Your task to perform on an android device: Open CNN.com Image 0: 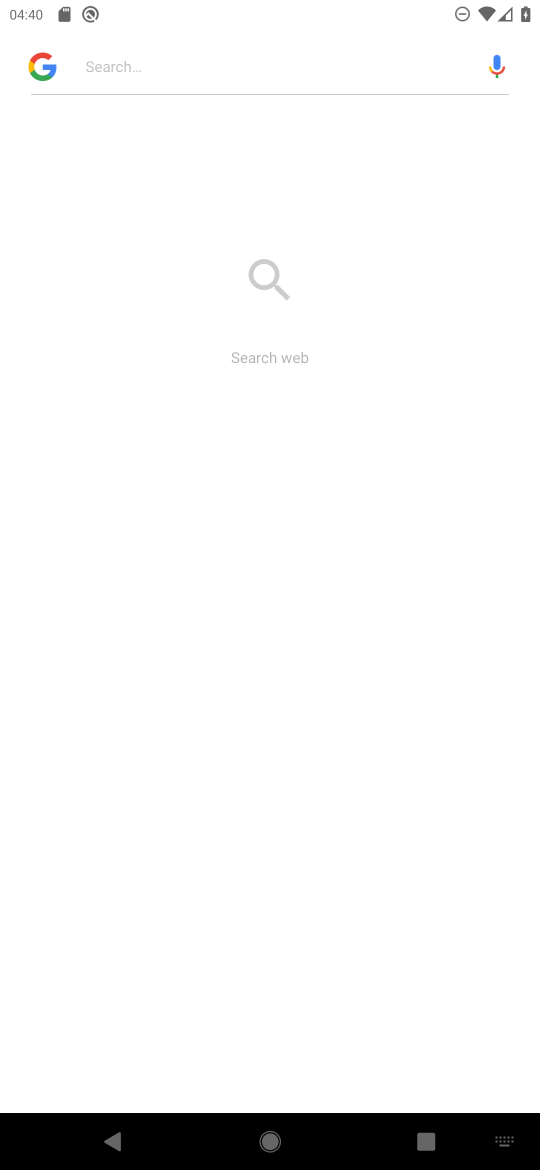
Step 0: press home button
Your task to perform on an android device: Open CNN.com Image 1: 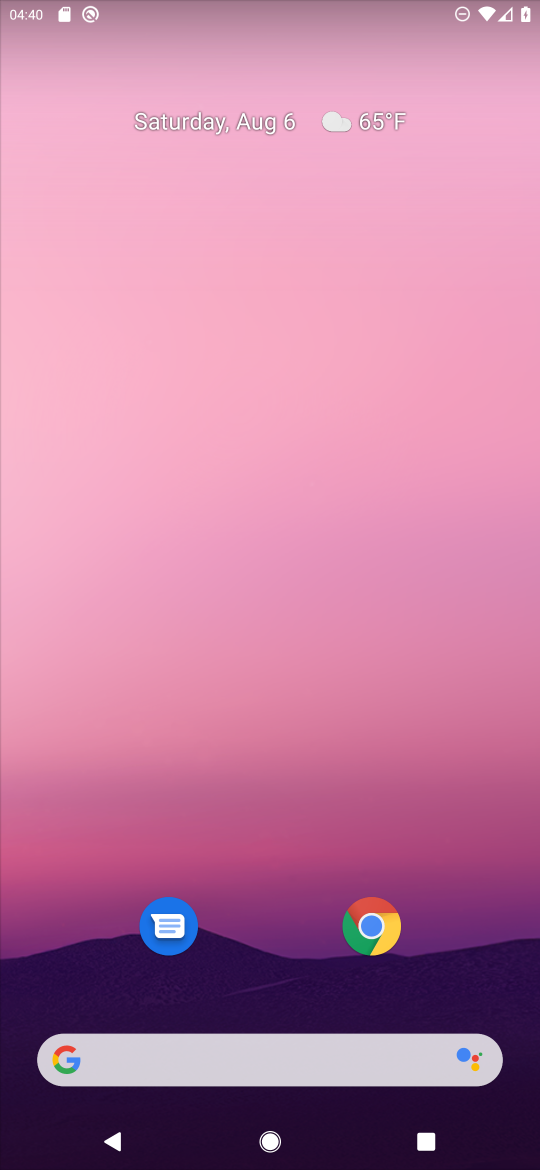
Step 1: click (354, 904)
Your task to perform on an android device: Open CNN.com Image 2: 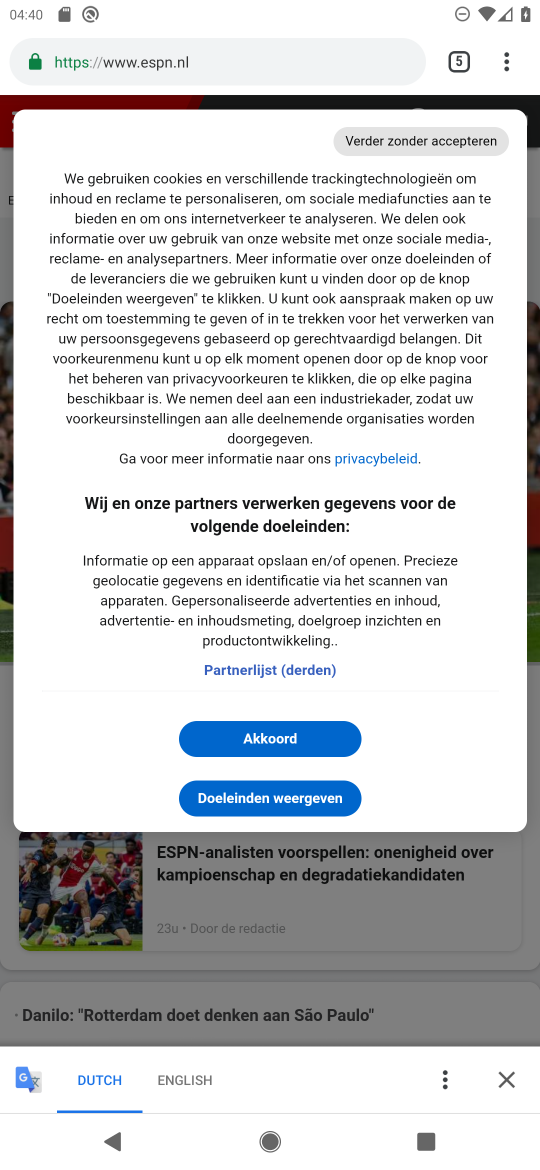
Step 2: click (473, 61)
Your task to perform on an android device: Open CNN.com Image 3: 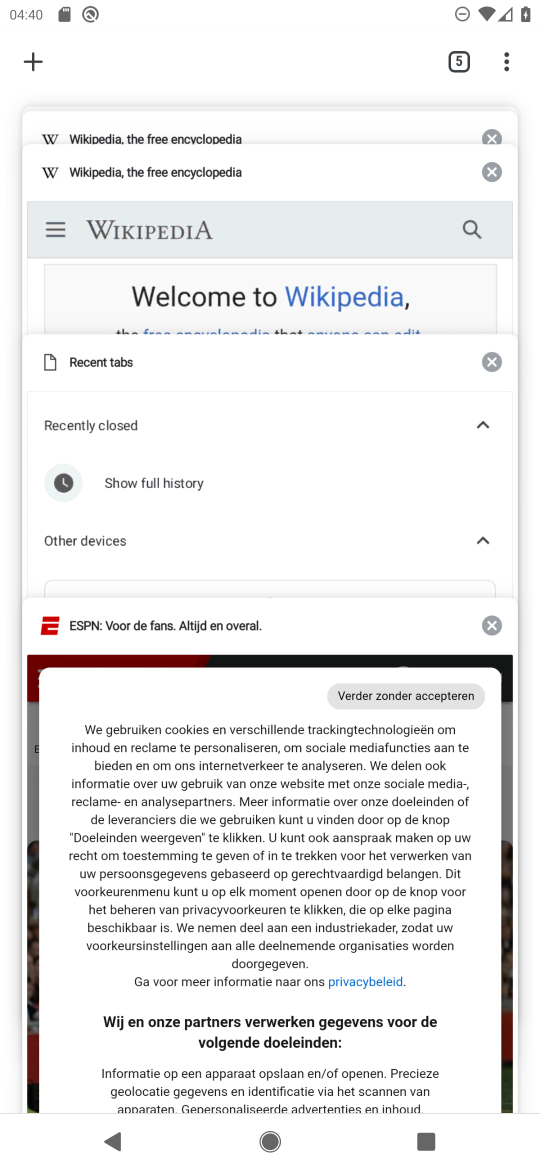
Step 3: click (30, 61)
Your task to perform on an android device: Open CNN.com Image 4: 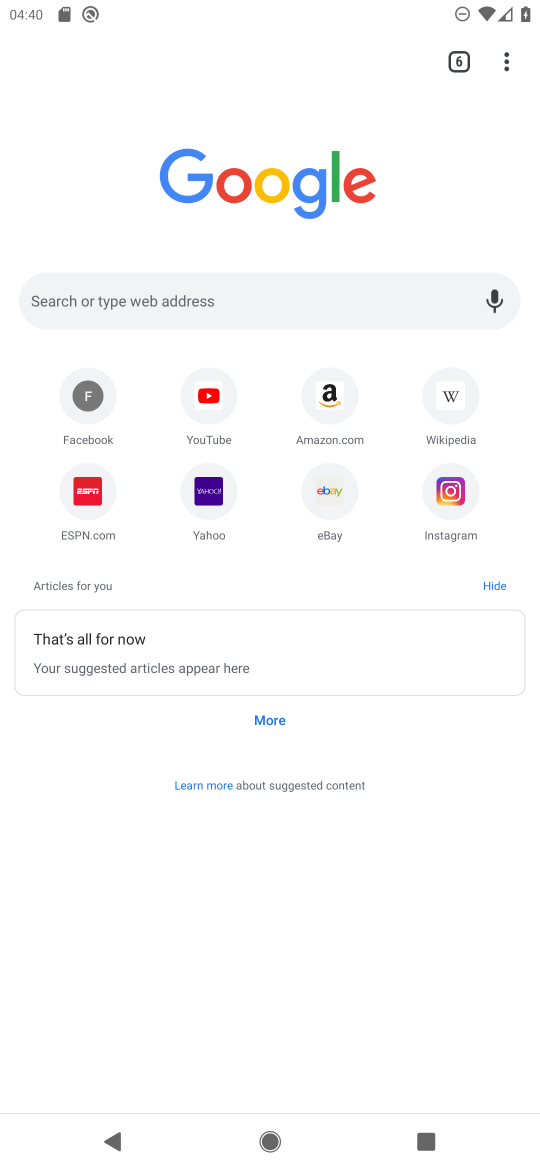
Step 4: click (145, 282)
Your task to perform on an android device: Open CNN.com Image 5: 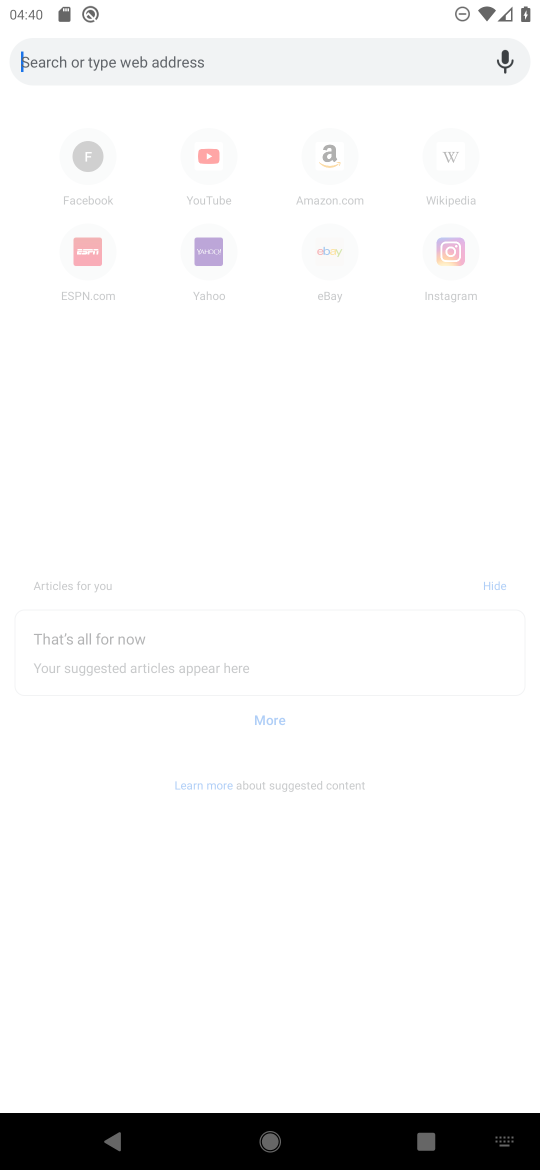
Step 5: type "CNN.com"
Your task to perform on an android device: Open CNN.com Image 6: 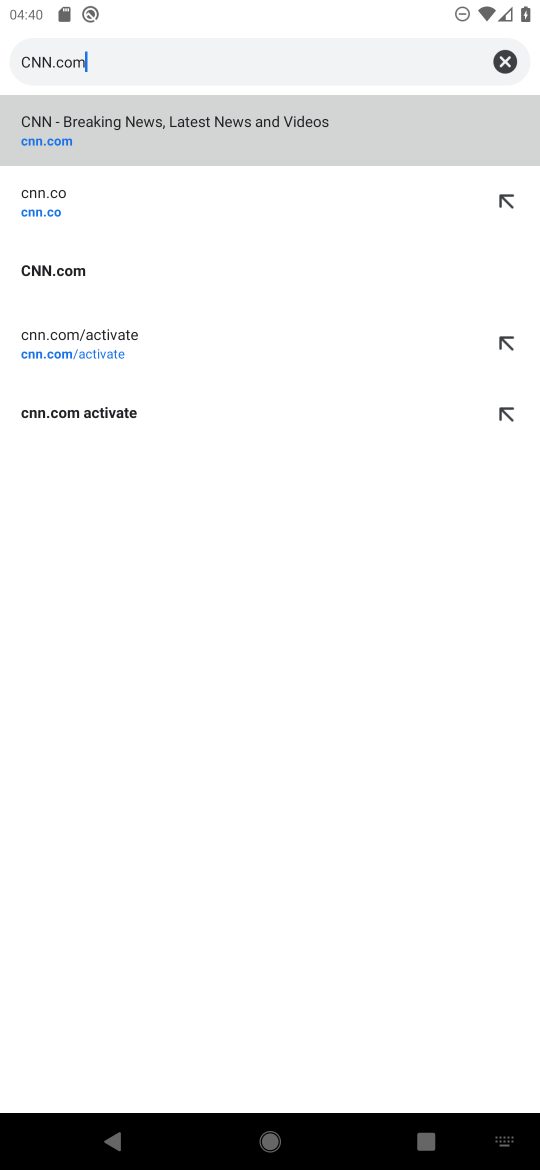
Step 6: type ""
Your task to perform on an android device: Open CNN.com Image 7: 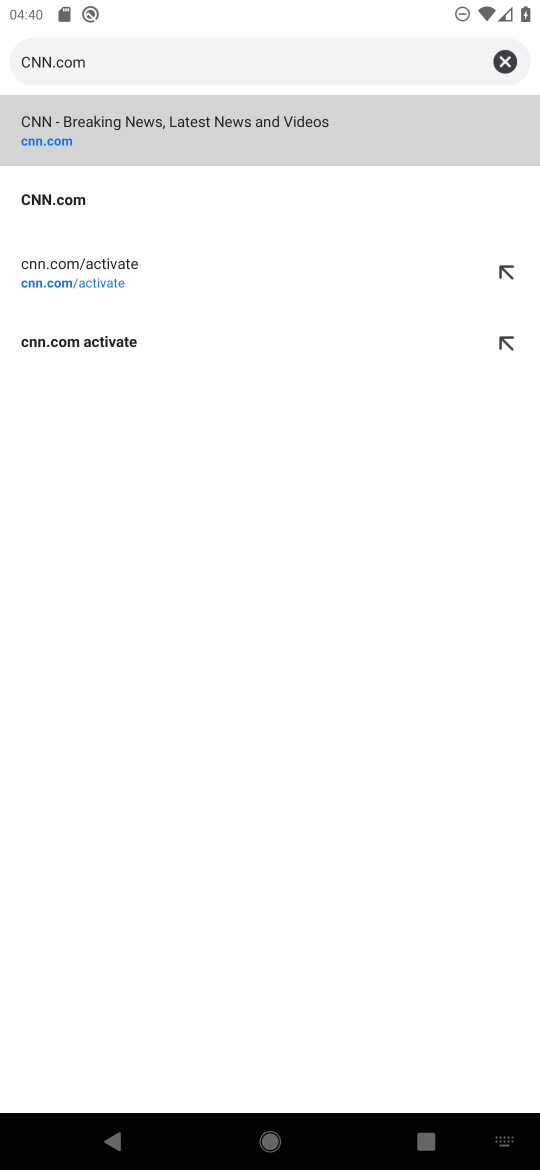
Step 7: click (122, 129)
Your task to perform on an android device: Open CNN.com Image 8: 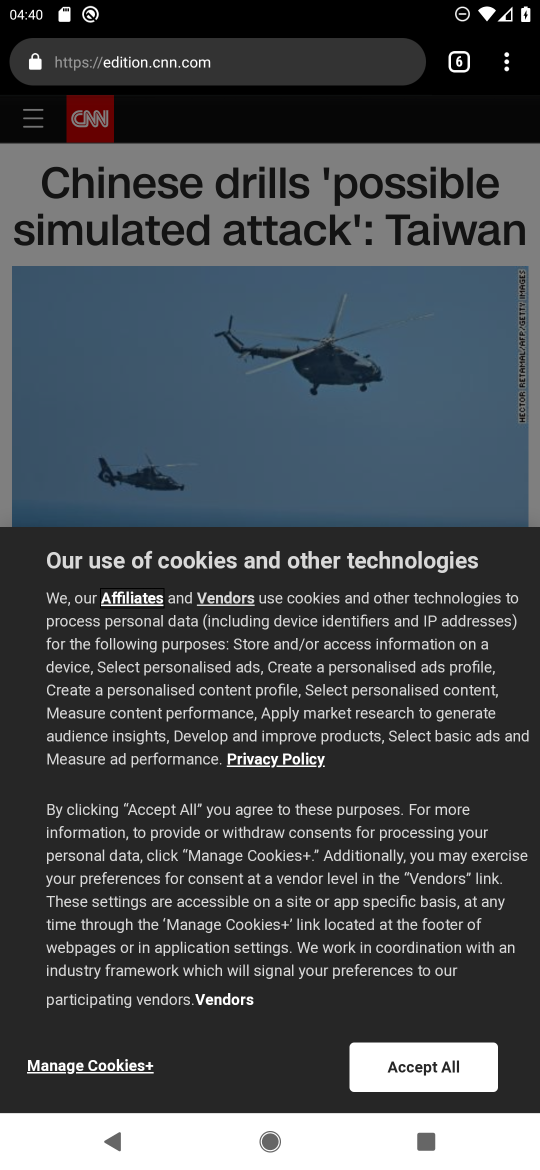
Step 8: task complete